Your task to perform on an android device: turn off javascript in the chrome app Image 0: 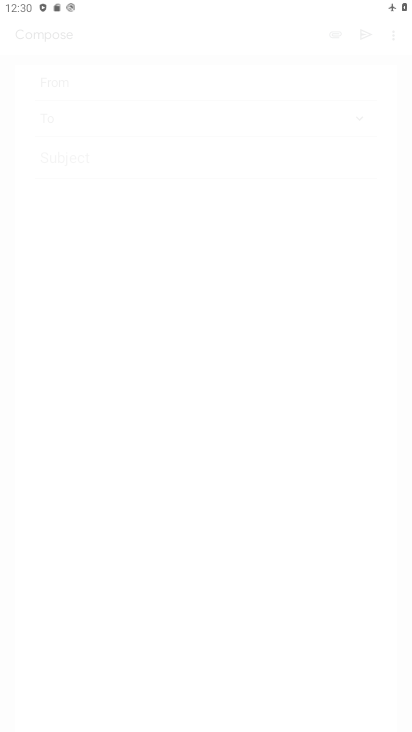
Step 0: press home button
Your task to perform on an android device: turn off javascript in the chrome app Image 1: 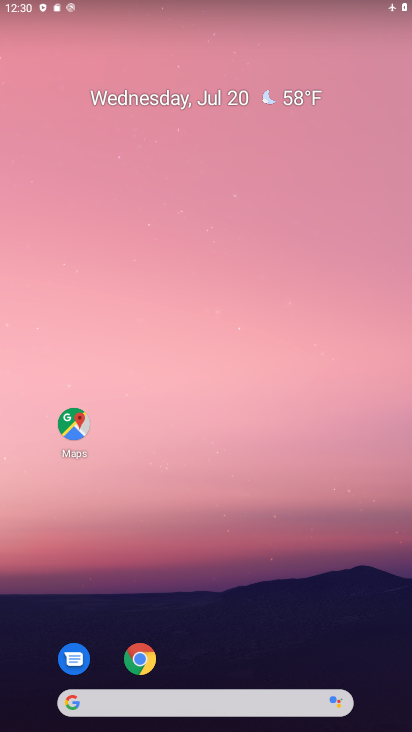
Step 1: click (137, 653)
Your task to perform on an android device: turn off javascript in the chrome app Image 2: 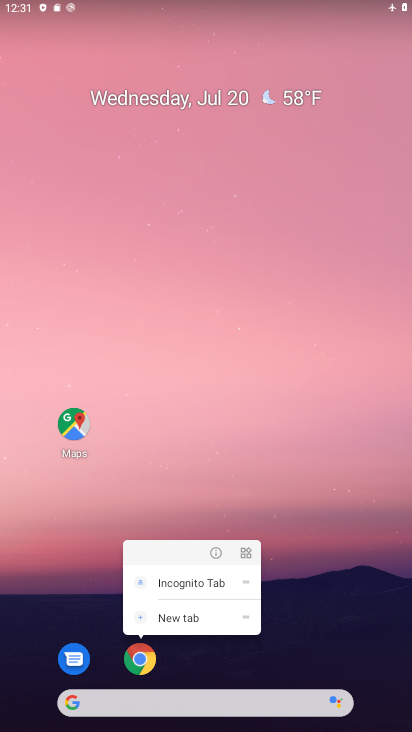
Step 2: click (138, 655)
Your task to perform on an android device: turn off javascript in the chrome app Image 3: 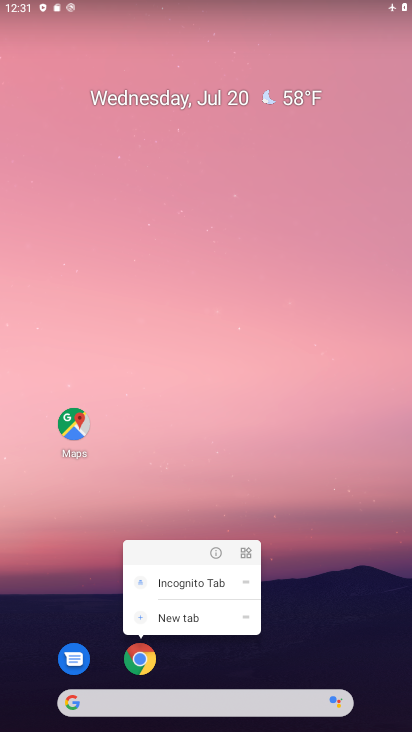
Step 3: click (135, 654)
Your task to perform on an android device: turn off javascript in the chrome app Image 4: 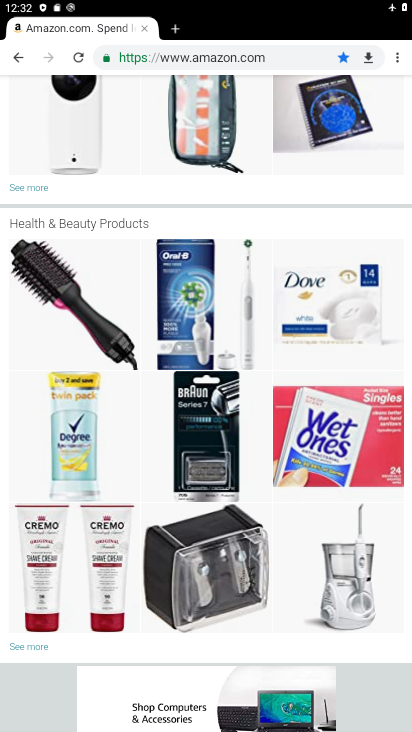
Step 4: click (399, 53)
Your task to perform on an android device: turn off javascript in the chrome app Image 5: 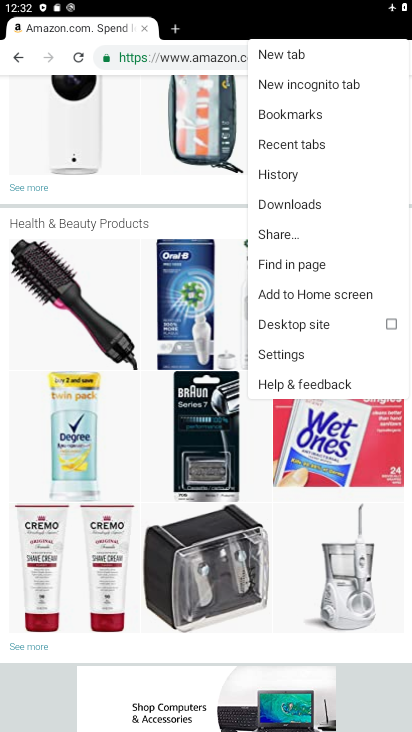
Step 5: click (302, 348)
Your task to perform on an android device: turn off javascript in the chrome app Image 6: 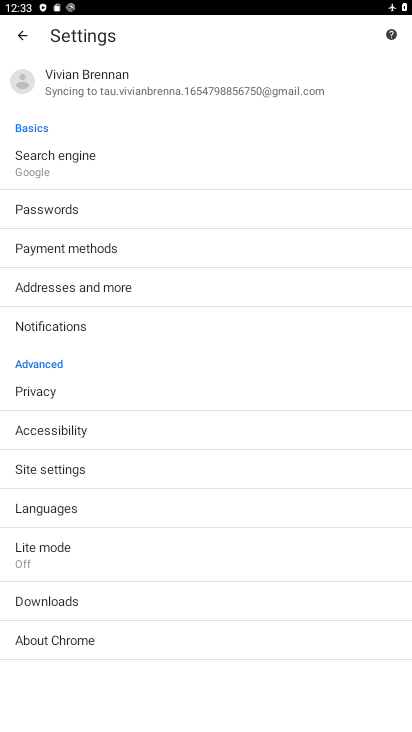
Step 6: click (101, 468)
Your task to perform on an android device: turn off javascript in the chrome app Image 7: 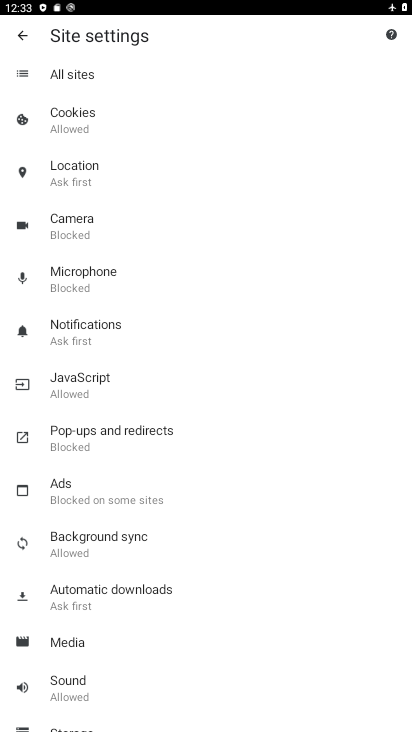
Step 7: click (116, 375)
Your task to perform on an android device: turn off javascript in the chrome app Image 8: 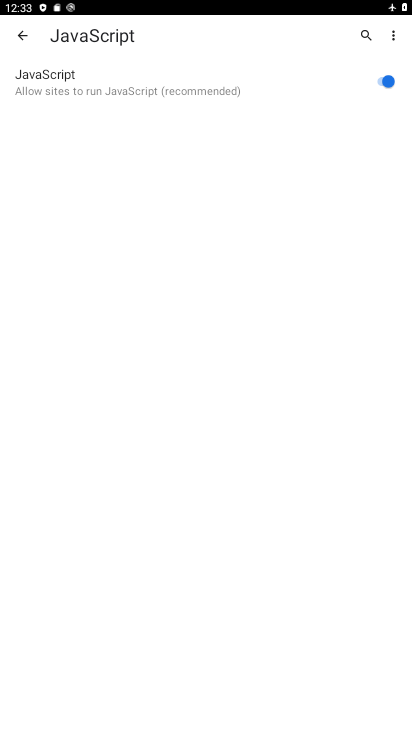
Step 8: click (374, 79)
Your task to perform on an android device: turn off javascript in the chrome app Image 9: 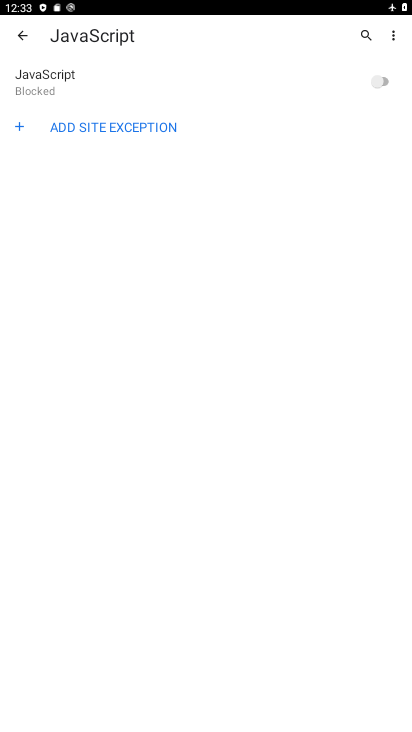
Step 9: task complete